Your task to perform on an android device: turn smart compose on in the gmail app Image 0: 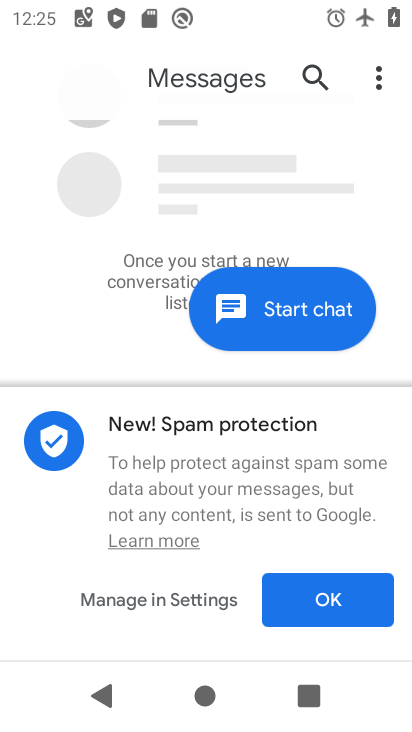
Step 0: press home button
Your task to perform on an android device: turn smart compose on in the gmail app Image 1: 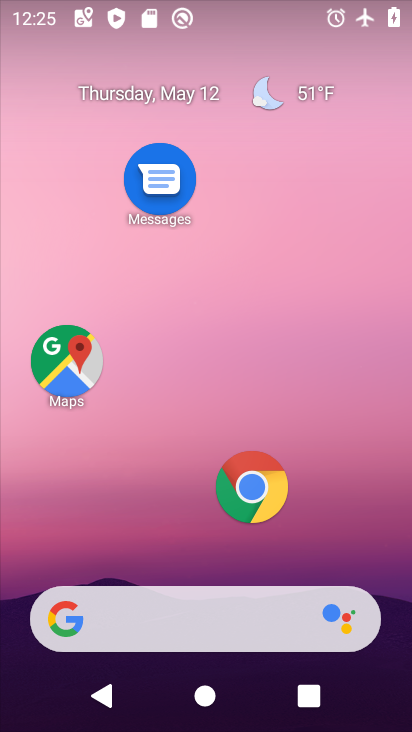
Step 1: drag from (168, 517) to (167, 62)
Your task to perform on an android device: turn smart compose on in the gmail app Image 2: 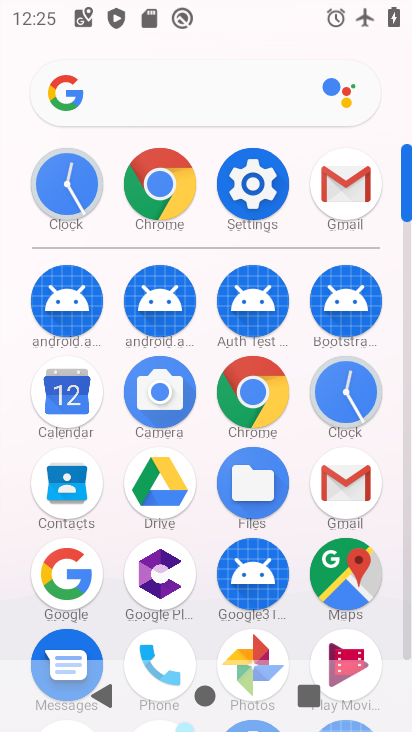
Step 2: click (334, 177)
Your task to perform on an android device: turn smart compose on in the gmail app Image 3: 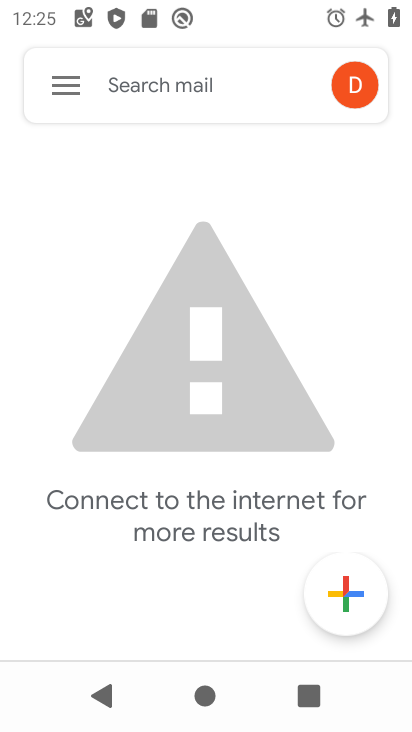
Step 3: click (60, 76)
Your task to perform on an android device: turn smart compose on in the gmail app Image 4: 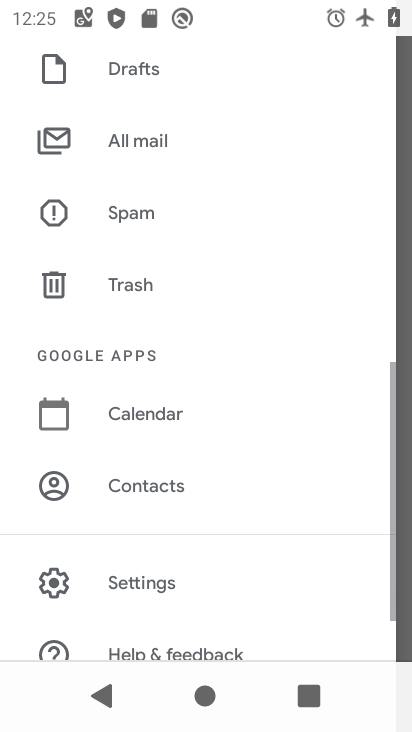
Step 4: drag from (129, 504) to (179, 212)
Your task to perform on an android device: turn smart compose on in the gmail app Image 5: 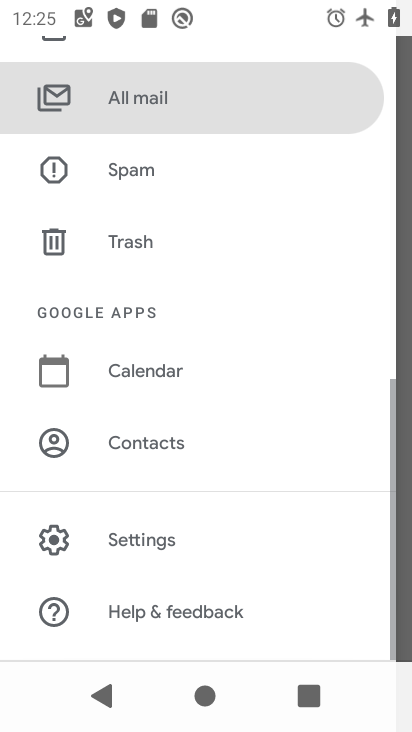
Step 5: click (166, 542)
Your task to perform on an android device: turn smart compose on in the gmail app Image 6: 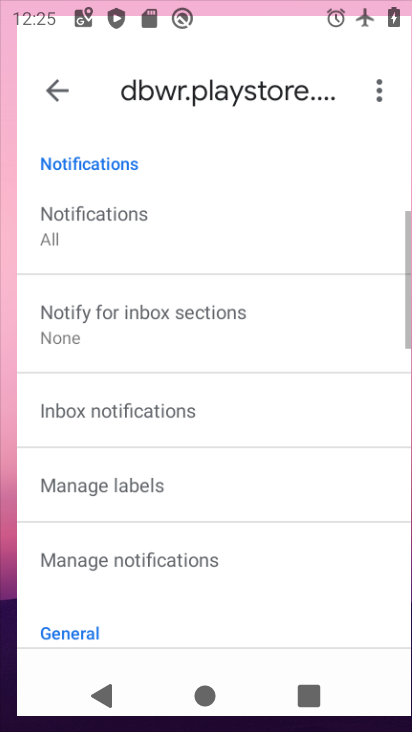
Step 6: task complete